Your task to perform on an android device: turn on the 12-hour format for clock Image 0: 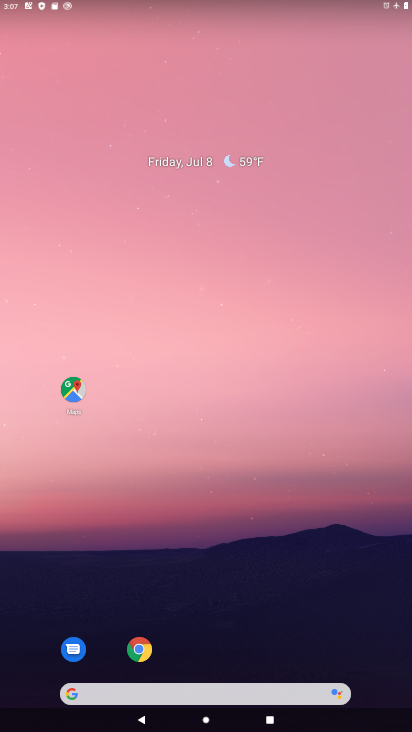
Step 0: drag from (260, 606) to (229, 166)
Your task to perform on an android device: turn on the 12-hour format for clock Image 1: 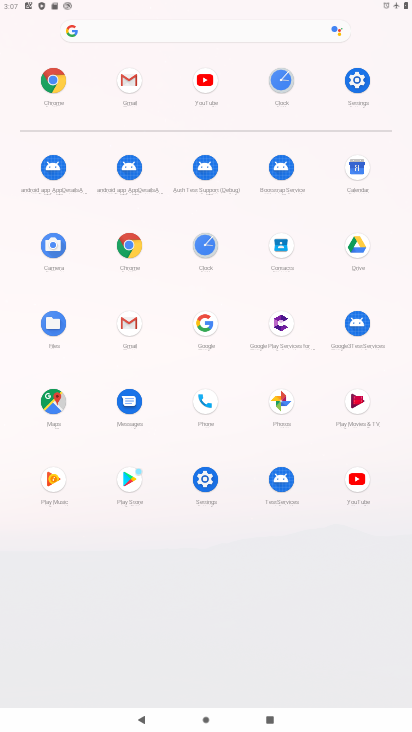
Step 1: click (200, 247)
Your task to perform on an android device: turn on the 12-hour format for clock Image 2: 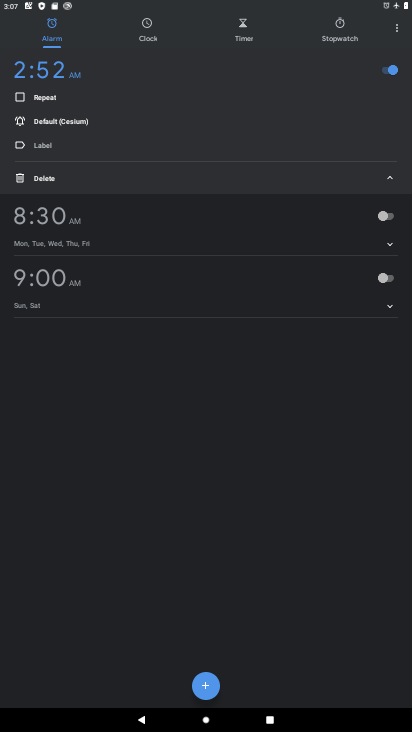
Step 2: click (398, 29)
Your task to perform on an android device: turn on the 12-hour format for clock Image 3: 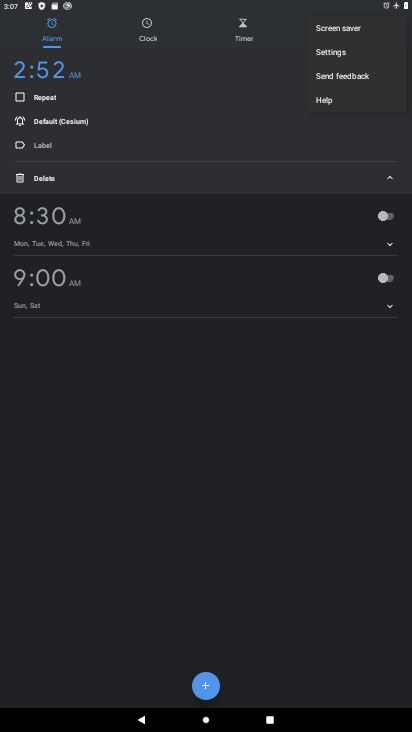
Step 3: click (345, 58)
Your task to perform on an android device: turn on the 12-hour format for clock Image 4: 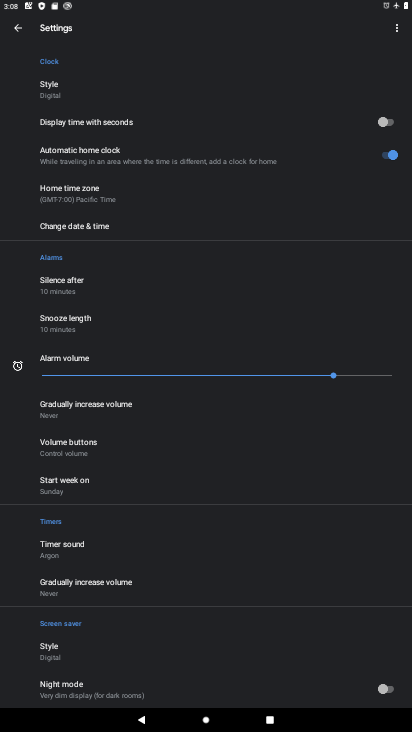
Step 4: click (93, 220)
Your task to perform on an android device: turn on the 12-hour format for clock Image 5: 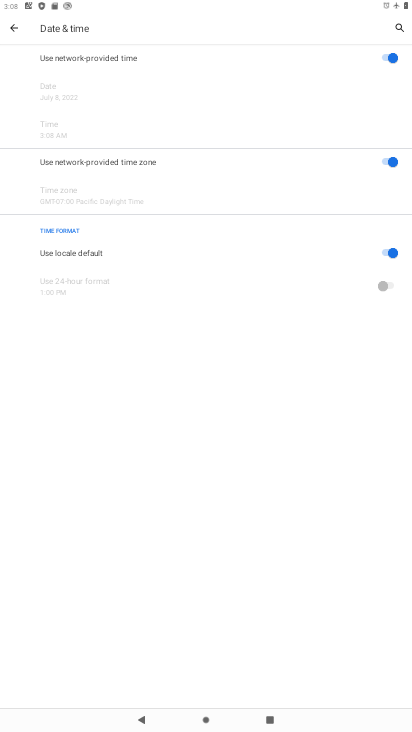
Step 5: task complete